Your task to perform on an android device: Go to display settings Image 0: 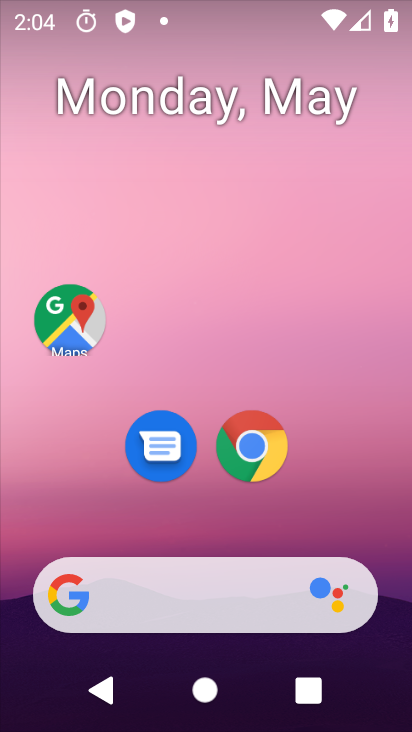
Step 0: drag from (228, 604) to (161, 71)
Your task to perform on an android device: Go to display settings Image 1: 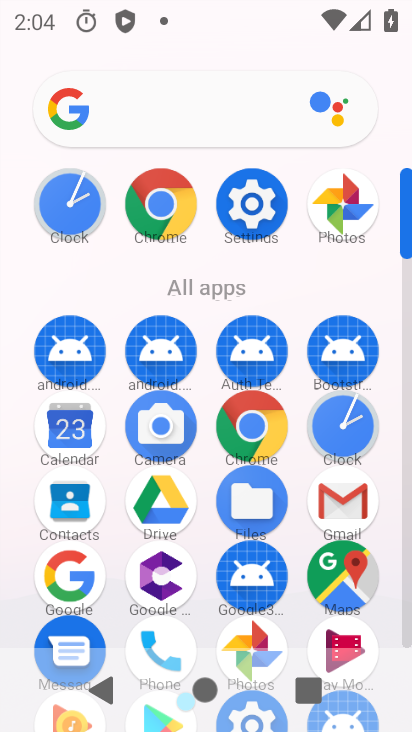
Step 1: click (260, 209)
Your task to perform on an android device: Go to display settings Image 2: 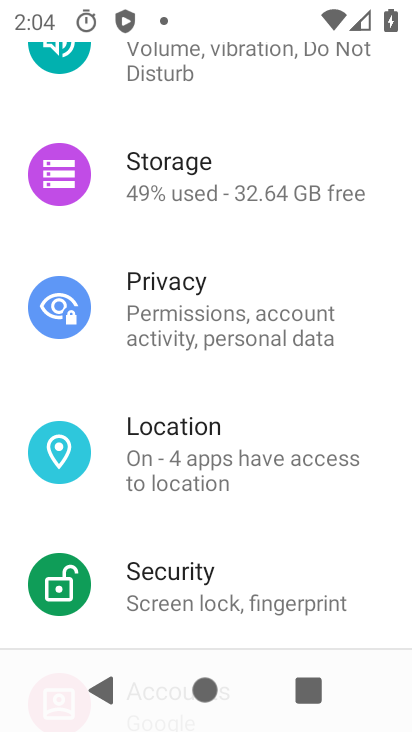
Step 2: drag from (198, 229) to (202, 636)
Your task to perform on an android device: Go to display settings Image 3: 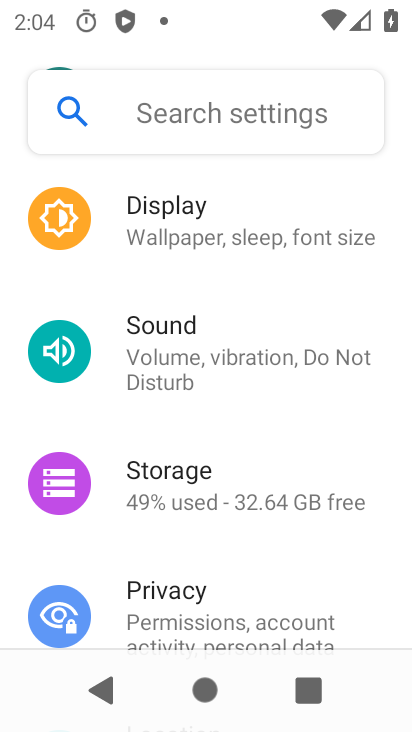
Step 3: click (196, 221)
Your task to perform on an android device: Go to display settings Image 4: 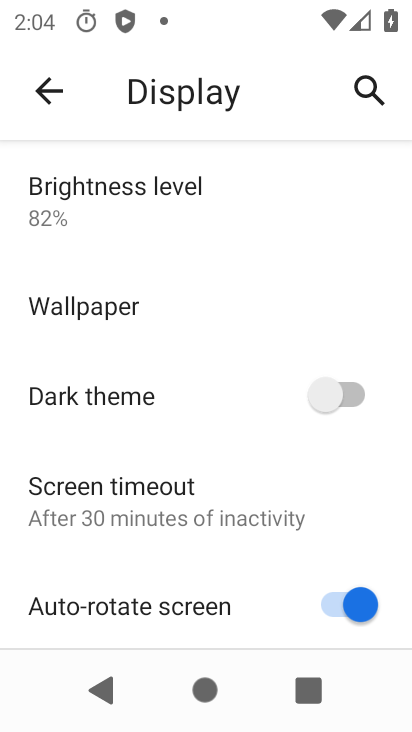
Step 4: task complete